Your task to perform on an android device: uninstall "Fetch Rewards" Image 0: 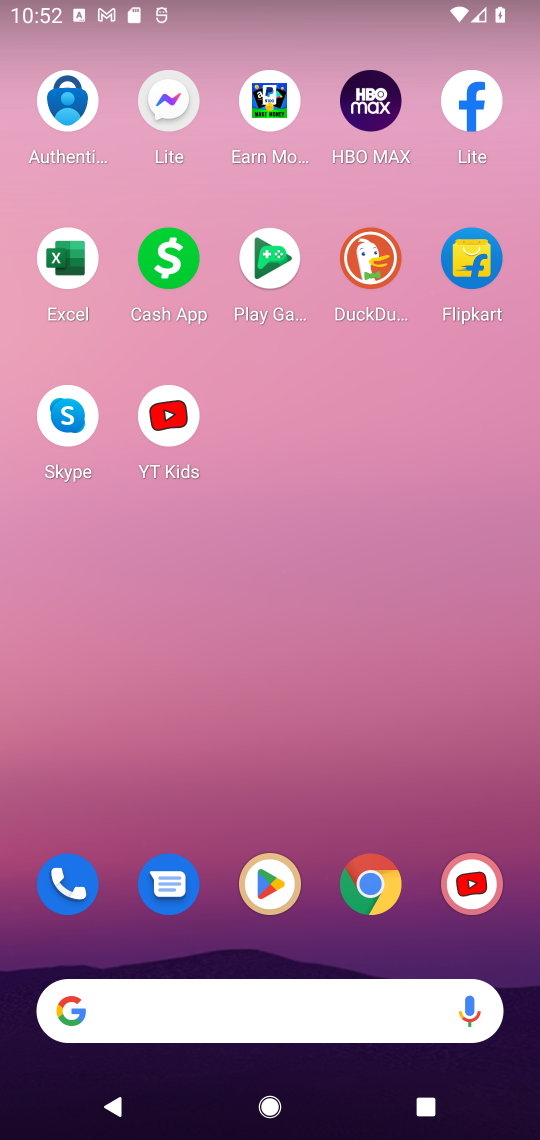
Step 0: drag from (256, 998) to (414, 332)
Your task to perform on an android device: uninstall "Fetch Rewards" Image 1: 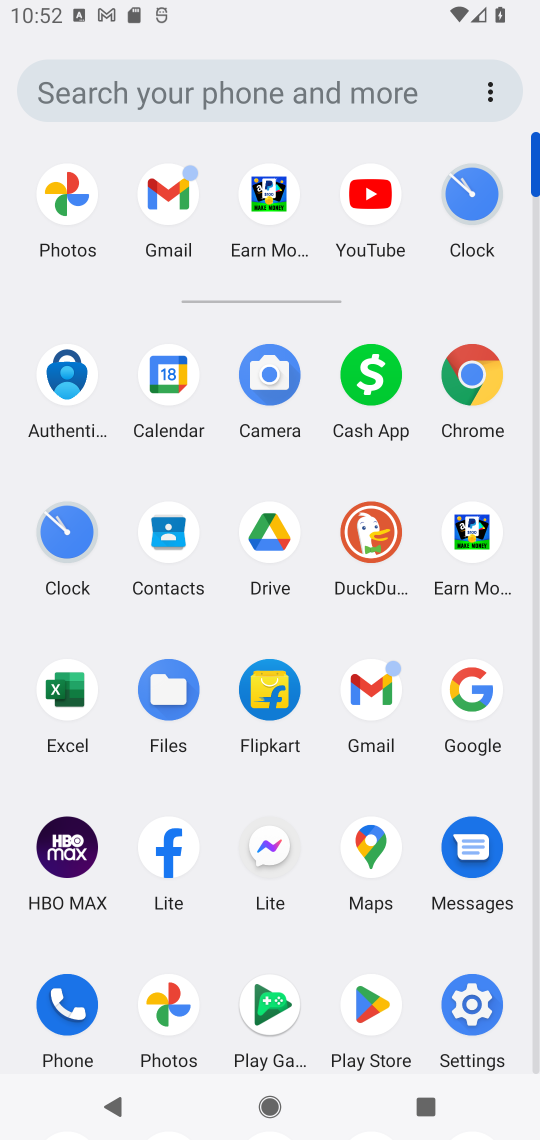
Step 1: click (368, 1014)
Your task to perform on an android device: uninstall "Fetch Rewards" Image 2: 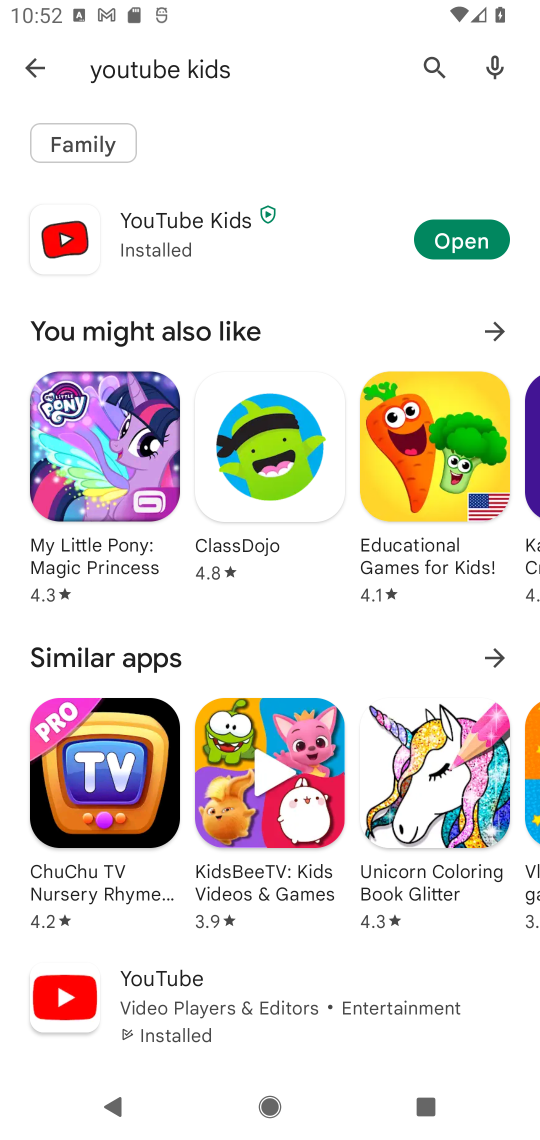
Step 2: press back button
Your task to perform on an android device: uninstall "Fetch Rewards" Image 3: 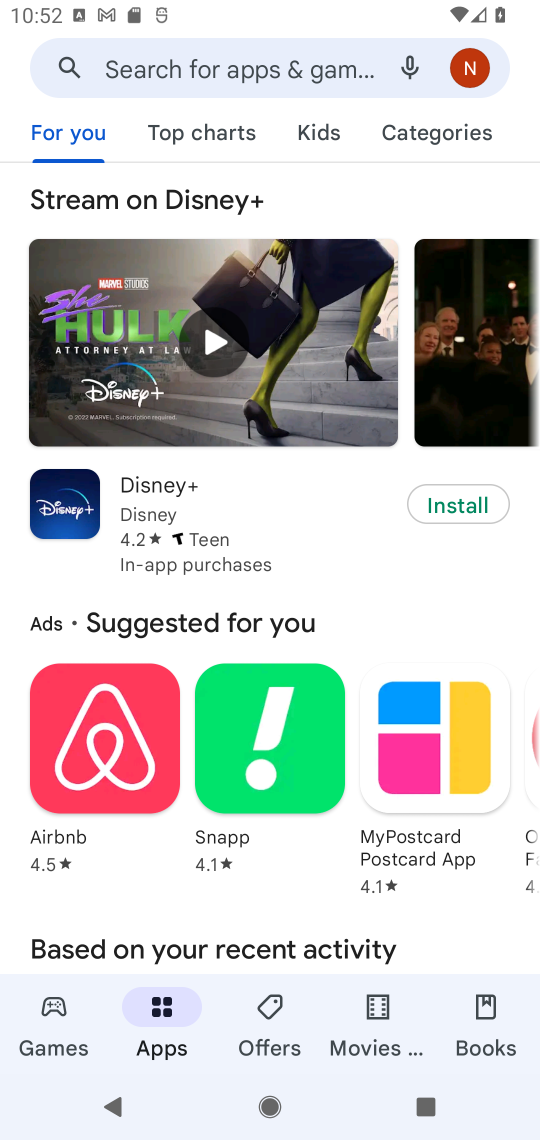
Step 3: click (195, 71)
Your task to perform on an android device: uninstall "Fetch Rewards" Image 4: 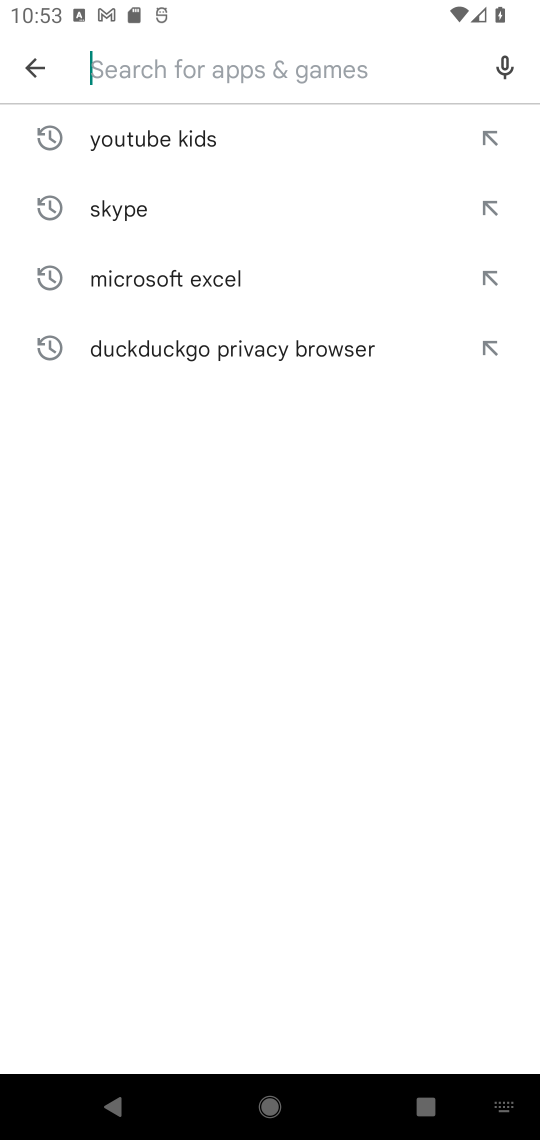
Step 4: type "Fetch Rewards"
Your task to perform on an android device: uninstall "Fetch Rewards" Image 5: 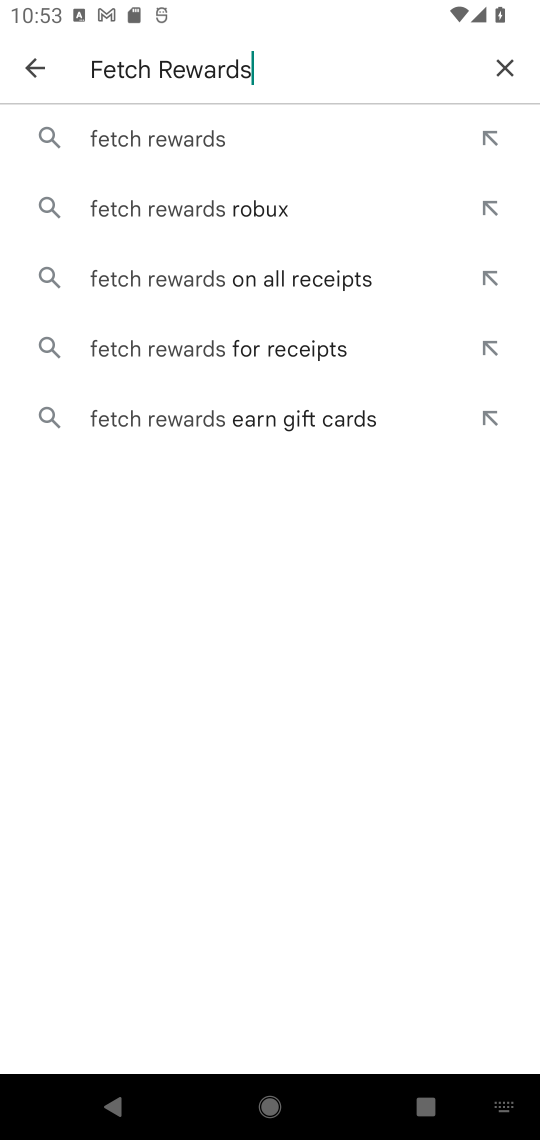
Step 5: click (219, 150)
Your task to perform on an android device: uninstall "Fetch Rewards" Image 6: 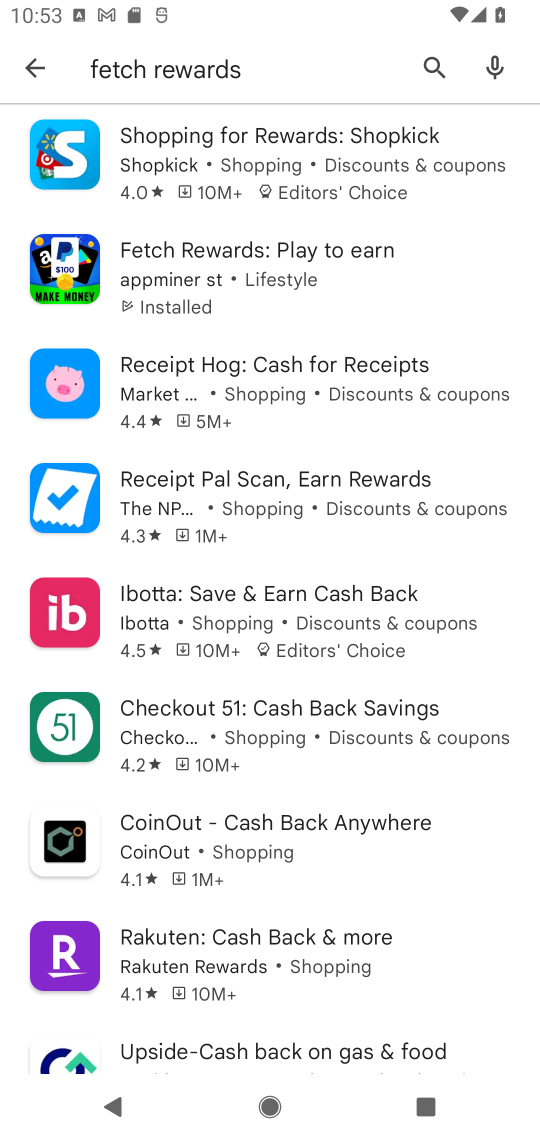
Step 6: click (256, 250)
Your task to perform on an android device: uninstall "Fetch Rewards" Image 7: 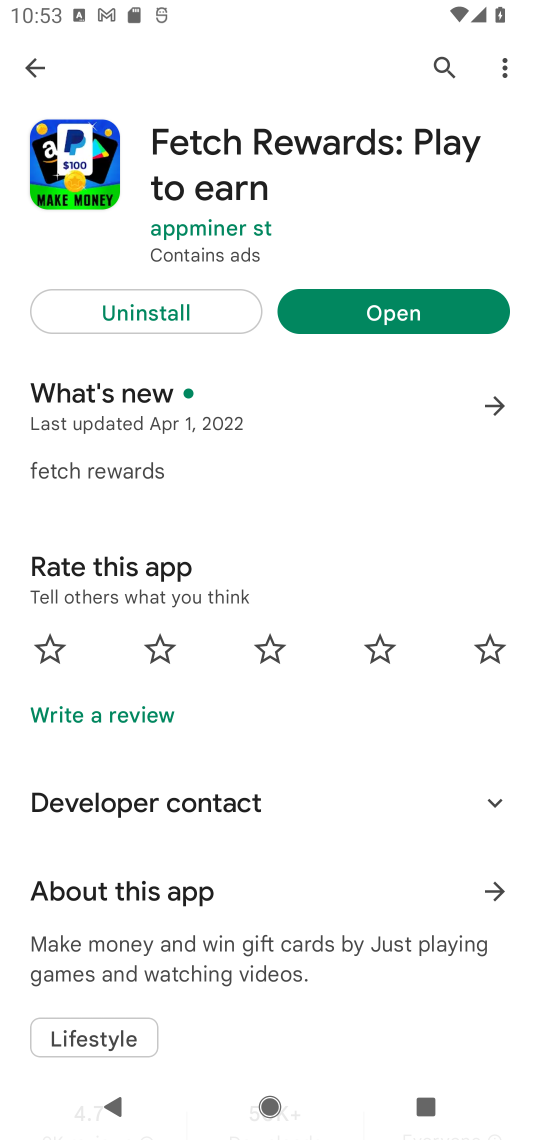
Step 7: click (161, 312)
Your task to perform on an android device: uninstall "Fetch Rewards" Image 8: 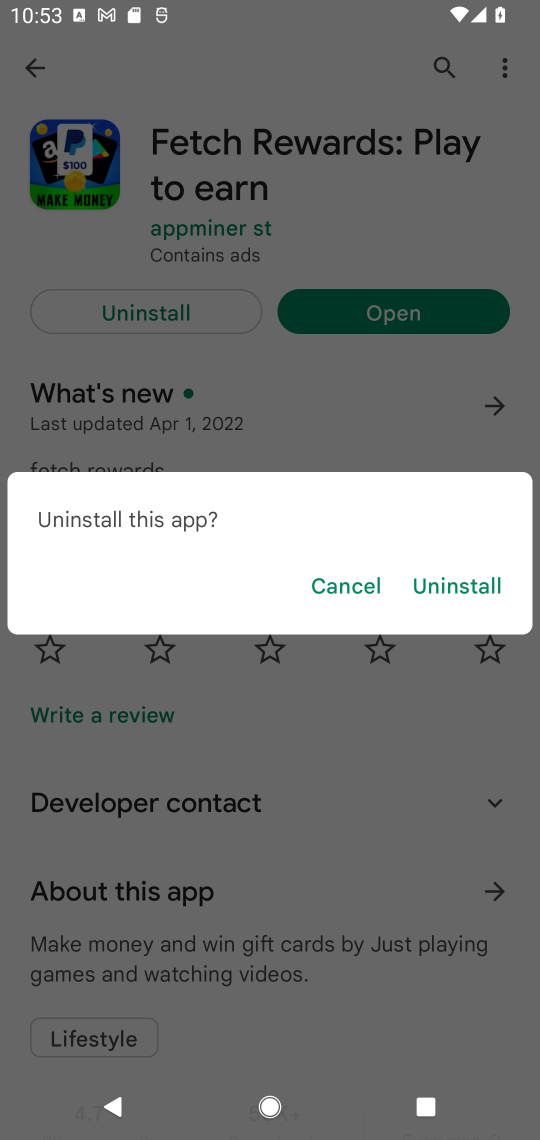
Step 8: click (449, 584)
Your task to perform on an android device: uninstall "Fetch Rewards" Image 9: 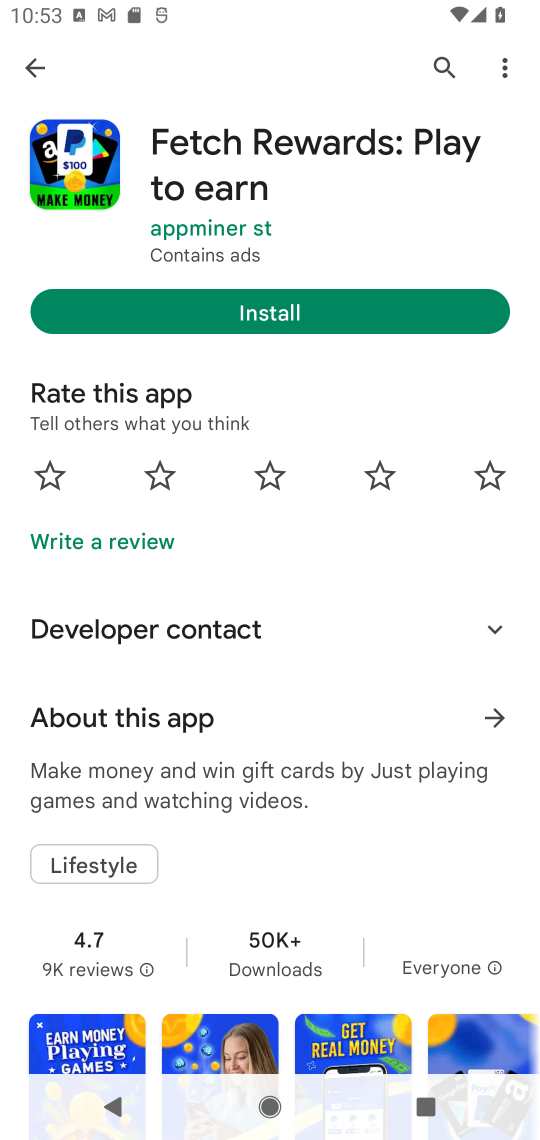
Step 9: task complete